Your task to perform on an android device: Open Chrome and go to settings Image 0: 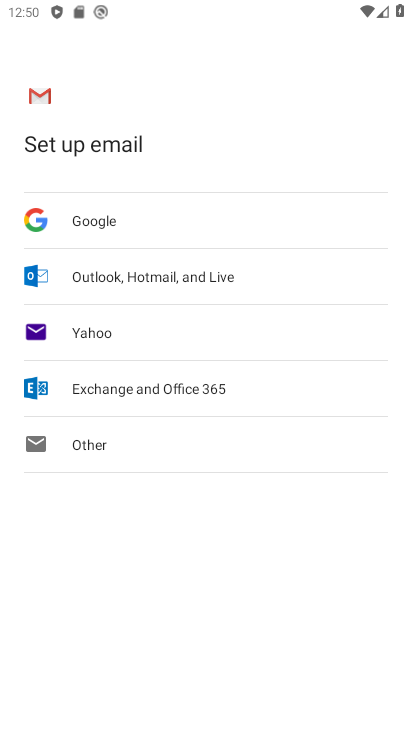
Step 0: press back button
Your task to perform on an android device: Open Chrome and go to settings Image 1: 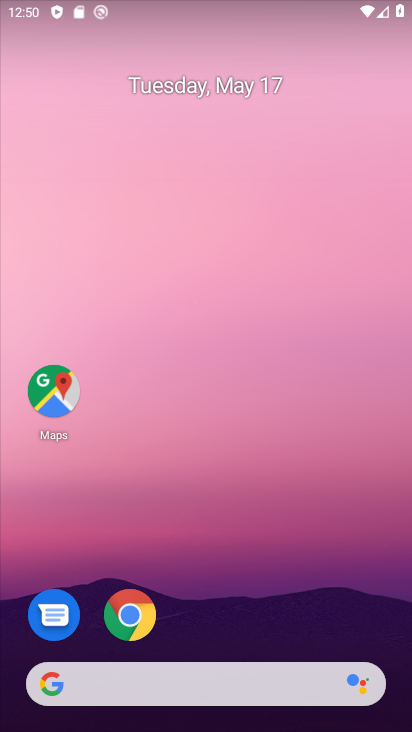
Step 1: click (130, 615)
Your task to perform on an android device: Open Chrome and go to settings Image 2: 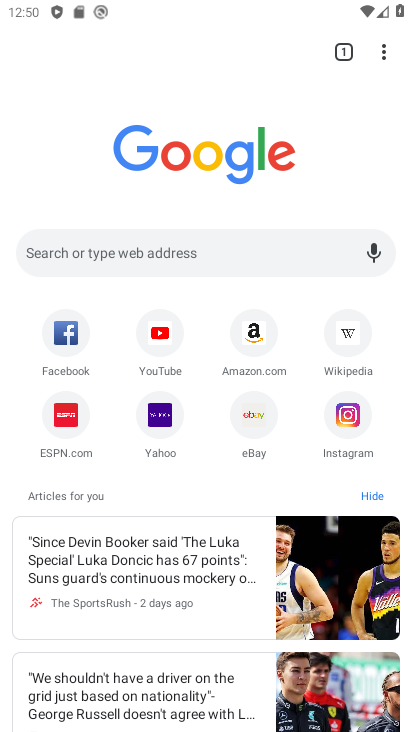
Step 2: click (383, 52)
Your task to perform on an android device: Open Chrome and go to settings Image 3: 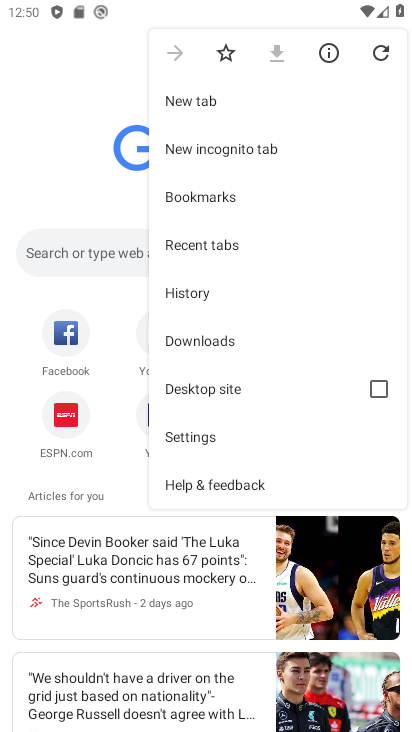
Step 3: click (187, 436)
Your task to perform on an android device: Open Chrome and go to settings Image 4: 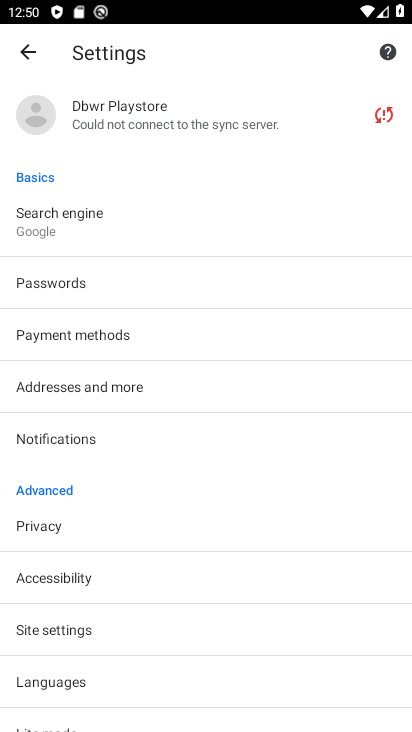
Step 4: task complete